Your task to perform on an android device: Open Google Image 0: 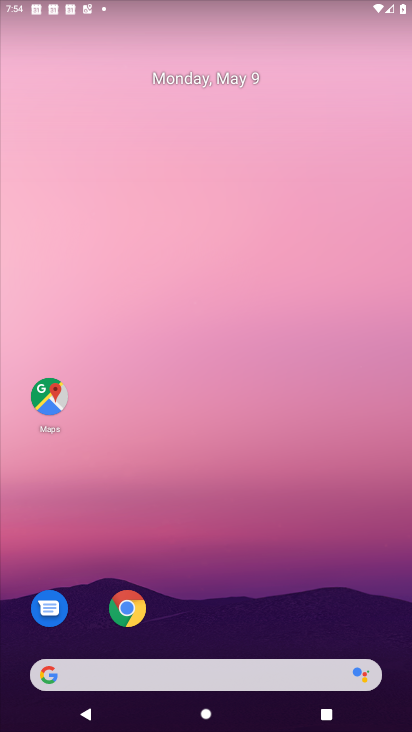
Step 0: drag from (128, 717) to (215, 8)
Your task to perform on an android device: Open Google Image 1: 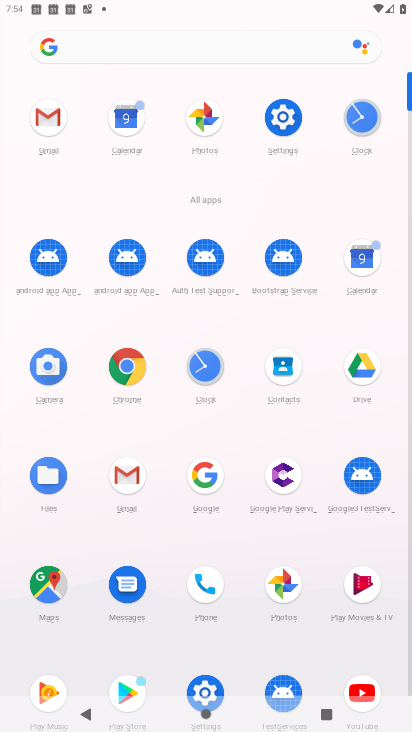
Step 1: click (221, 479)
Your task to perform on an android device: Open Google Image 2: 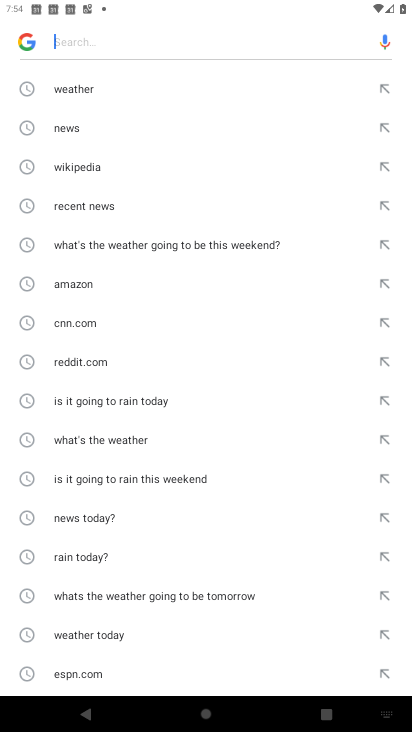
Step 2: press back button
Your task to perform on an android device: Open Google Image 3: 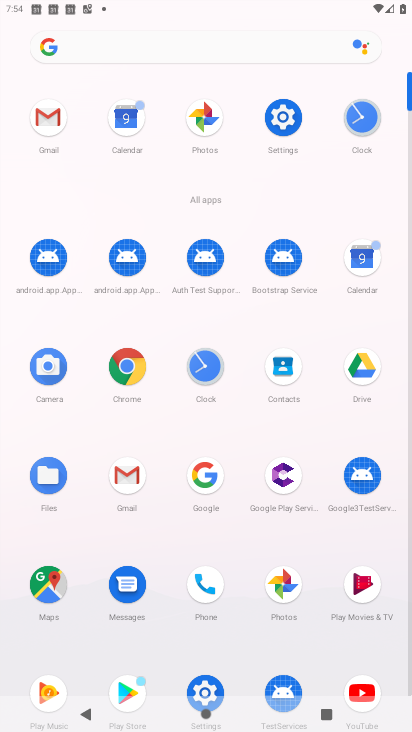
Step 3: click (215, 469)
Your task to perform on an android device: Open Google Image 4: 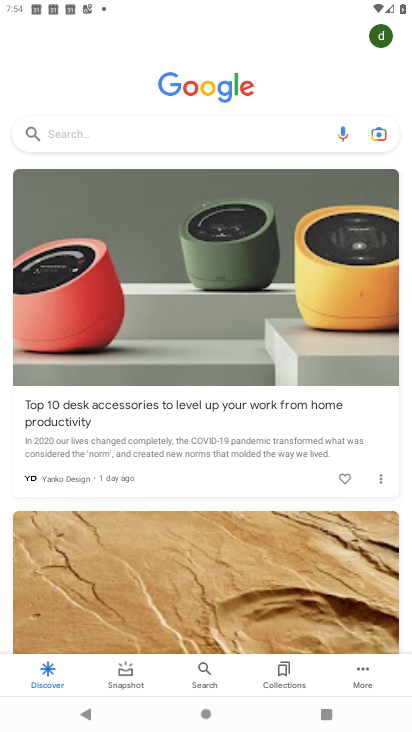
Step 4: task complete